Your task to perform on an android device: Open the Play Movies app and select the watchlist tab. Image 0: 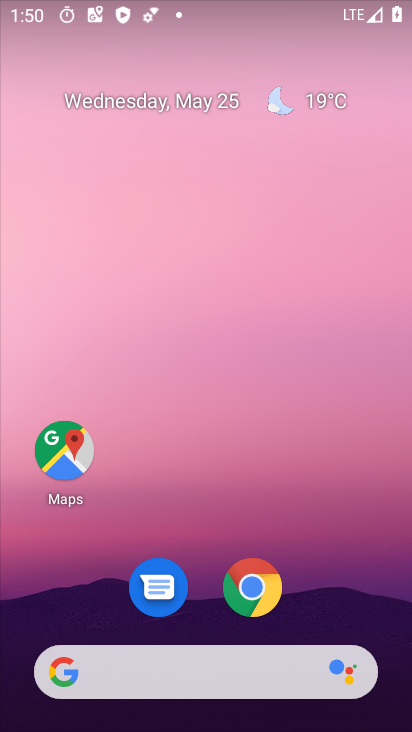
Step 0: drag from (238, 725) to (208, 129)
Your task to perform on an android device: Open the Play Movies app and select the watchlist tab. Image 1: 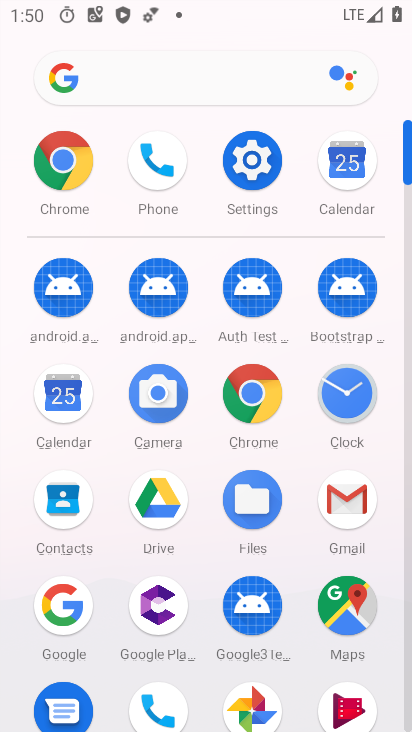
Step 1: click (340, 694)
Your task to perform on an android device: Open the Play Movies app and select the watchlist tab. Image 2: 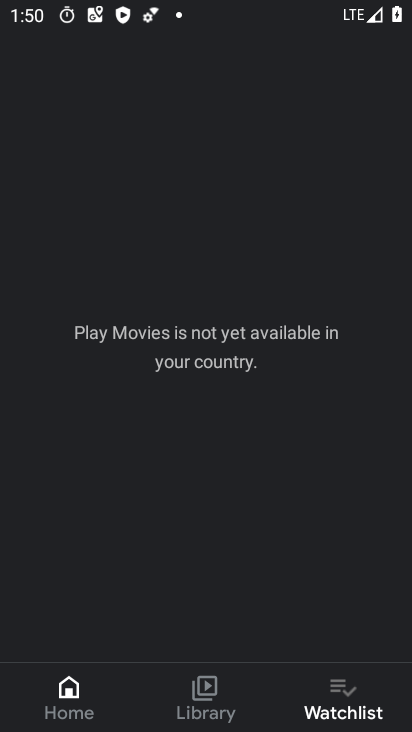
Step 2: task complete